Your task to perform on an android device: Open Google Maps and go to "Timeline" Image 0: 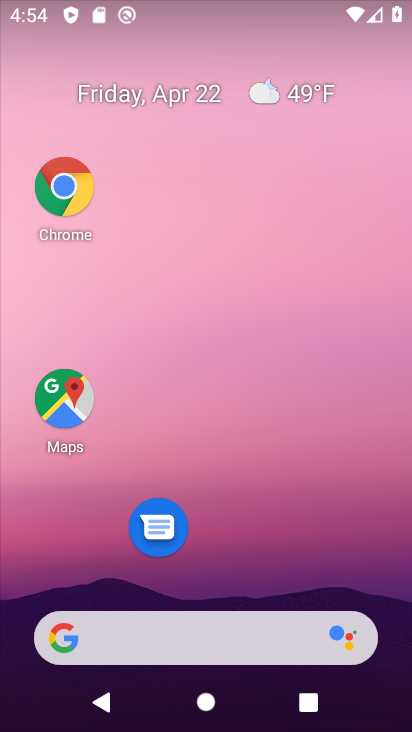
Step 0: click (267, 176)
Your task to perform on an android device: Open Google Maps and go to "Timeline" Image 1: 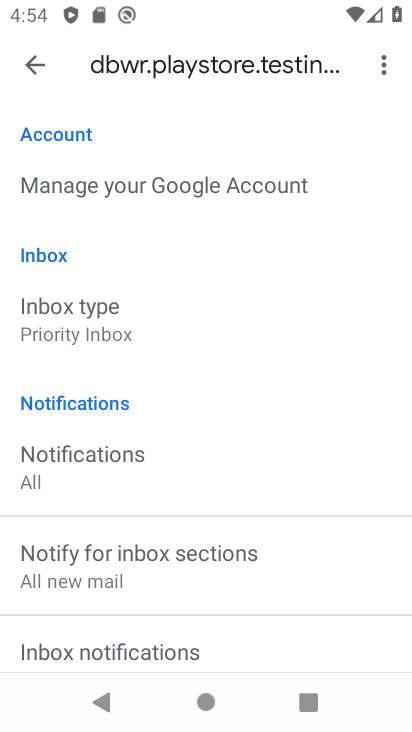
Step 1: click (29, 90)
Your task to perform on an android device: Open Google Maps and go to "Timeline" Image 2: 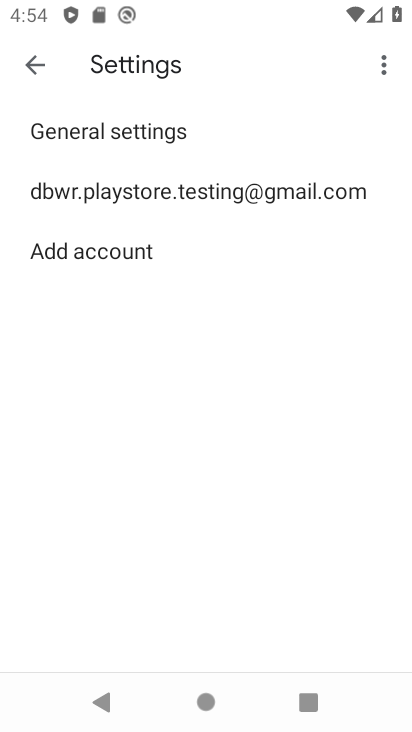
Step 2: click (30, 65)
Your task to perform on an android device: Open Google Maps and go to "Timeline" Image 3: 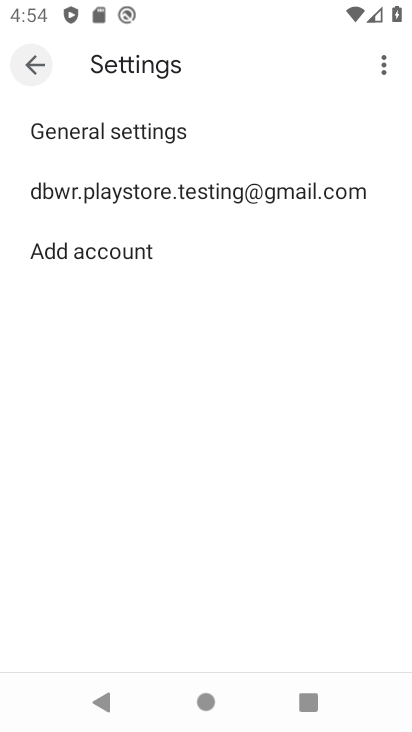
Step 3: click (30, 65)
Your task to perform on an android device: Open Google Maps and go to "Timeline" Image 4: 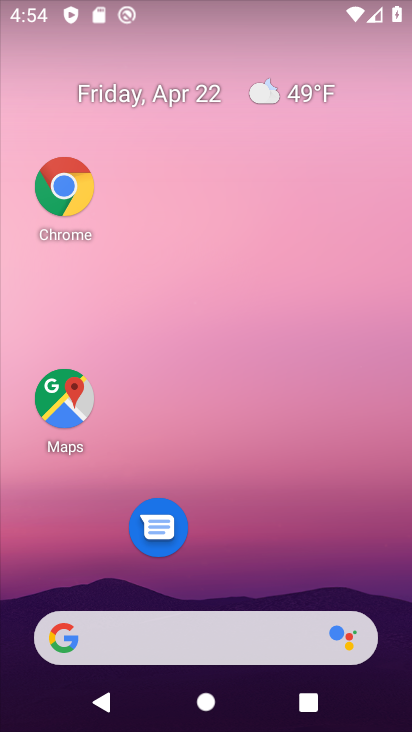
Step 4: drag from (356, 676) to (184, 68)
Your task to perform on an android device: Open Google Maps and go to "Timeline" Image 5: 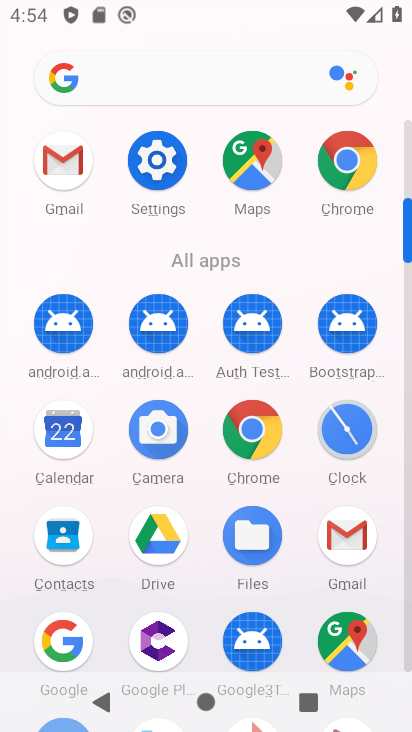
Step 5: click (248, 148)
Your task to perform on an android device: Open Google Maps and go to "Timeline" Image 6: 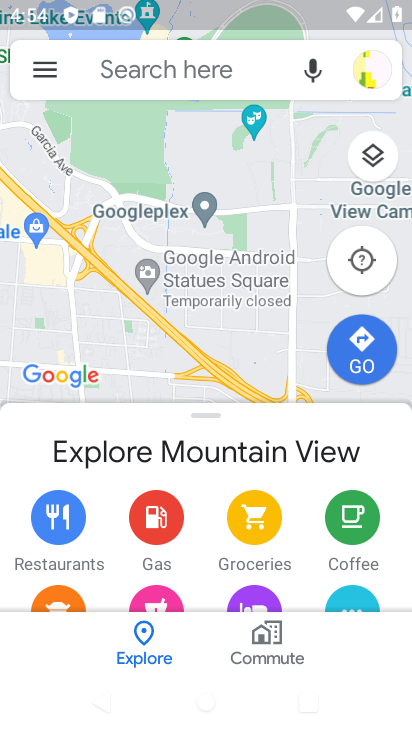
Step 6: click (40, 71)
Your task to perform on an android device: Open Google Maps and go to "Timeline" Image 7: 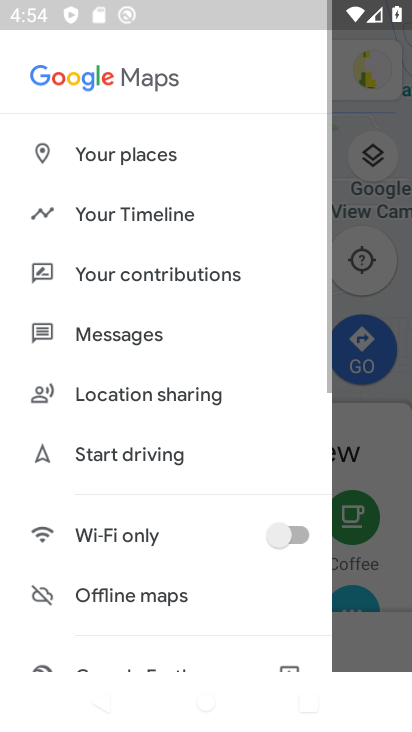
Step 7: click (100, 212)
Your task to perform on an android device: Open Google Maps and go to "Timeline" Image 8: 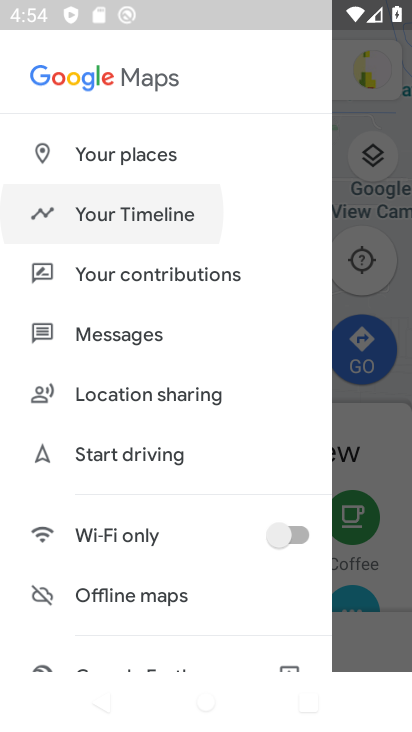
Step 8: click (100, 212)
Your task to perform on an android device: Open Google Maps and go to "Timeline" Image 9: 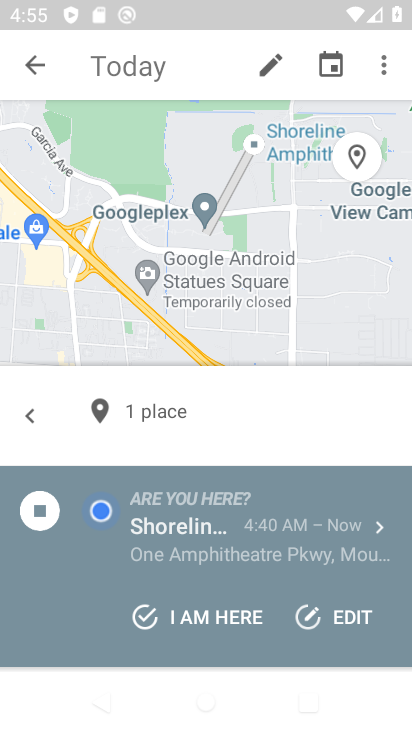
Step 9: task complete